Your task to perform on an android device: check the backup settings in the google photos Image 0: 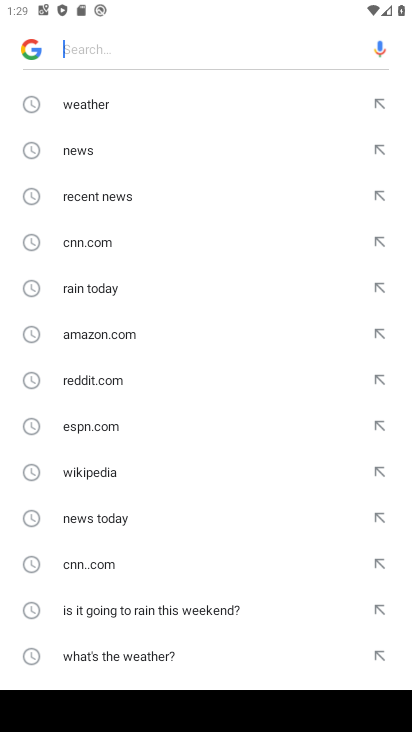
Step 0: press home button
Your task to perform on an android device: check the backup settings in the google photos Image 1: 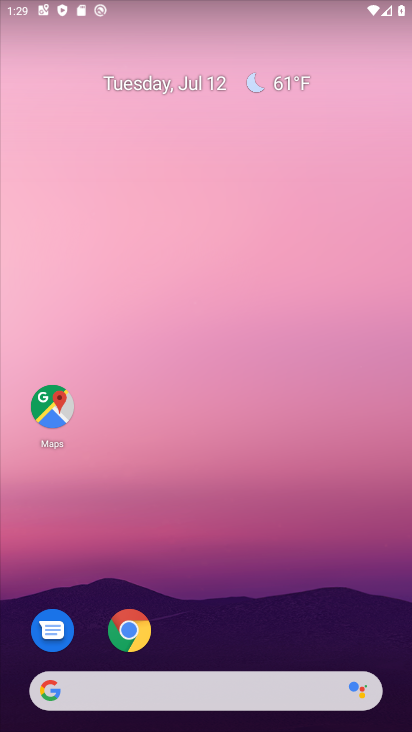
Step 1: drag from (204, 386) to (222, 179)
Your task to perform on an android device: check the backup settings in the google photos Image 2: 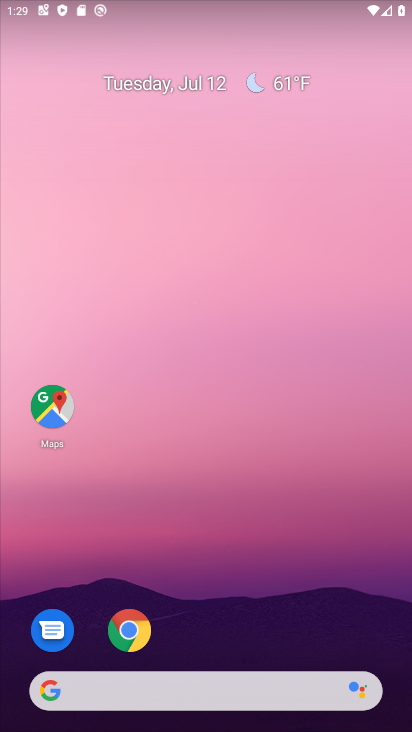
Step 2: drag from (218, 650) to (190, 74)
Your task to perform on an android device: check the backup settings in the google photos Image 3: 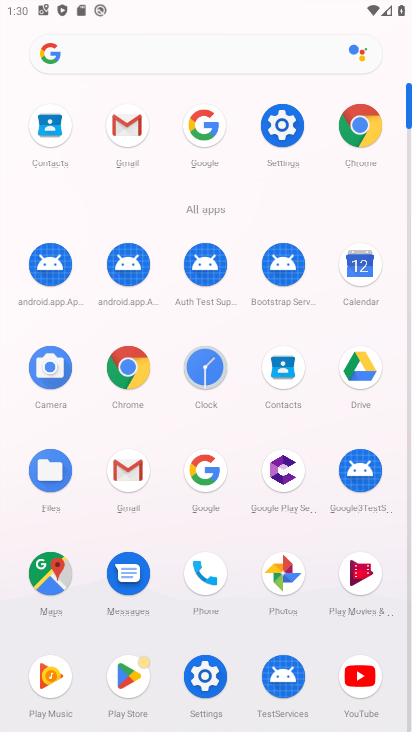
Step 3: click (281, 587)
Your task to perform on an android device: check the backup settings in the google photos Image 4: 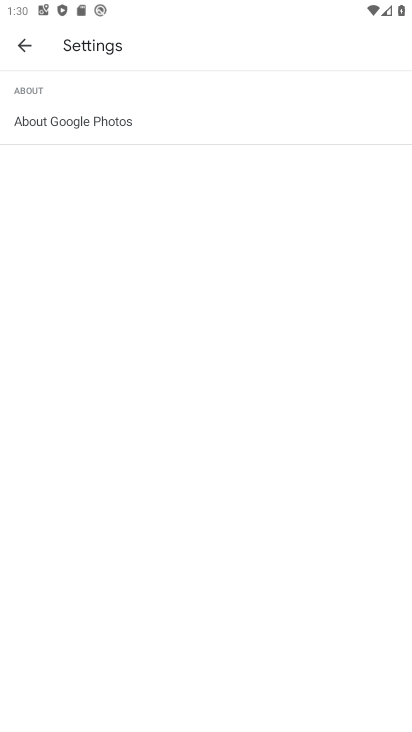
Step 4: click (34, 51)
Your task to perform on an android device: check the backup settings in the google photos Image 5: 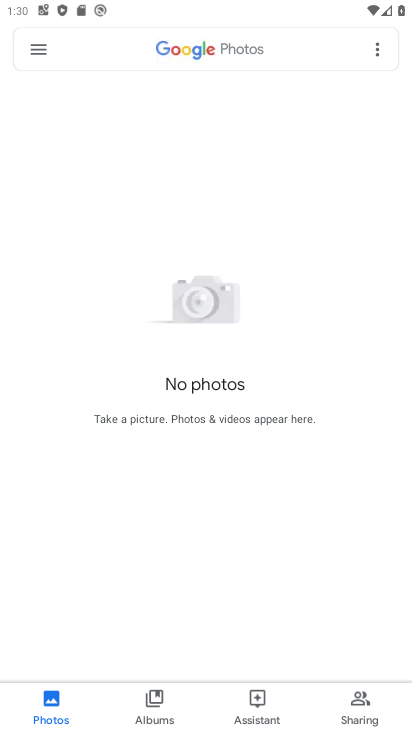
Step 5: click (34, 51)
Your task to perform on an android device: check the backup settings in the google photos Image 6: 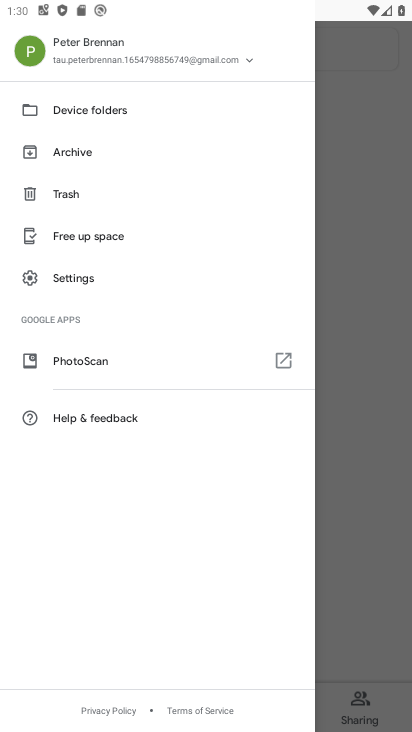
Step 6: click (72, 265)
Your task to perform on an android device: check the backup settings in the google photos Image 7: 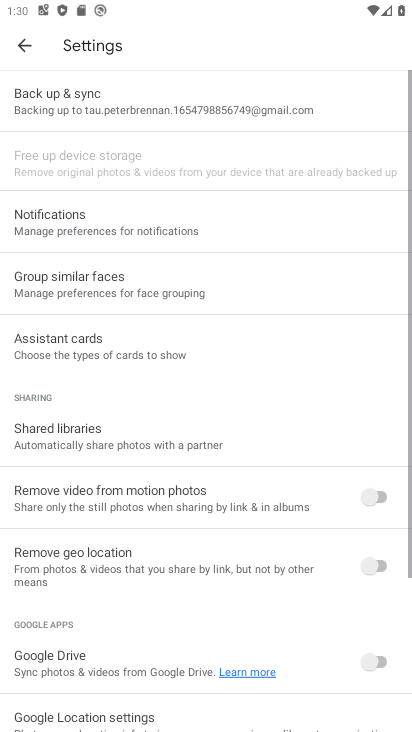
Step 7: click (105, 103)
Your task to perform on an android device: check the backup settings in the google photos Image 8: 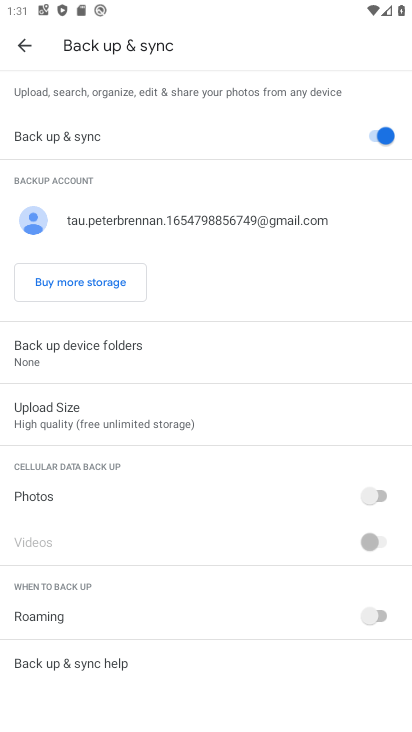
Step 8: click (155, 361)
Your task to perform on an android device: check the backup settings in the google photos Image 9: 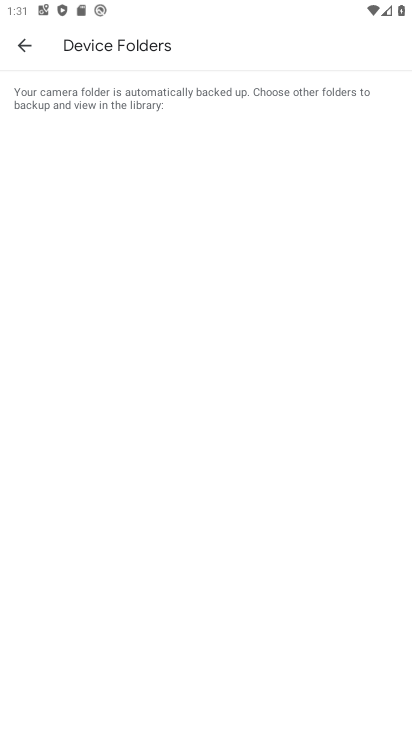
Step 9: task complete